Your task to perform on an android device: turn off picture-in-picture Image 0: 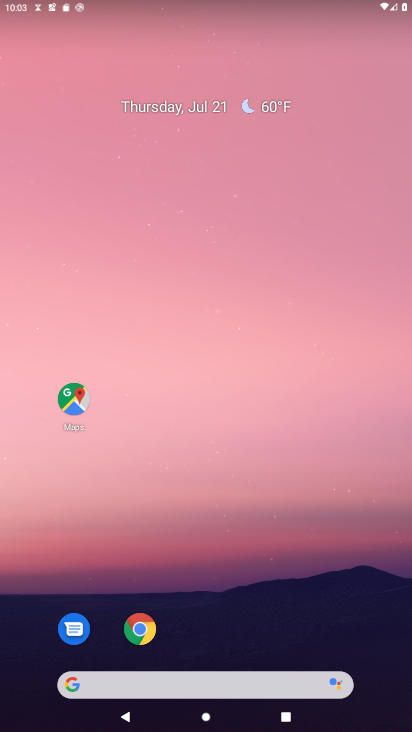
Step 0: drag from (292, 640) to (268, 154)
Your task to perform on an android device: turn off picture-in-picture Image 1: 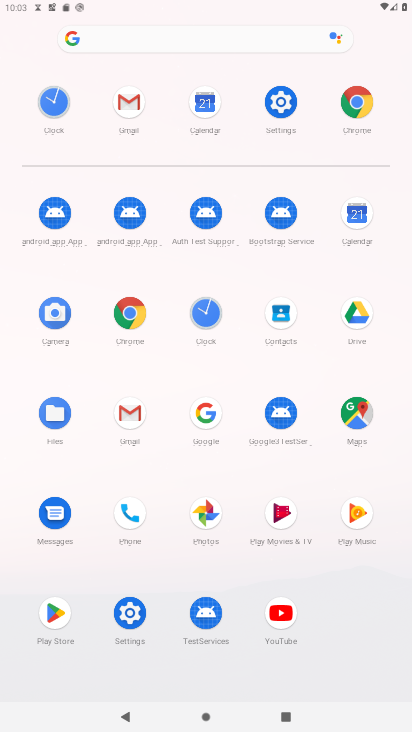
Step 1: click (289, 107)
Your task to perform on an android device: turn off picture-in-picture Image 2: 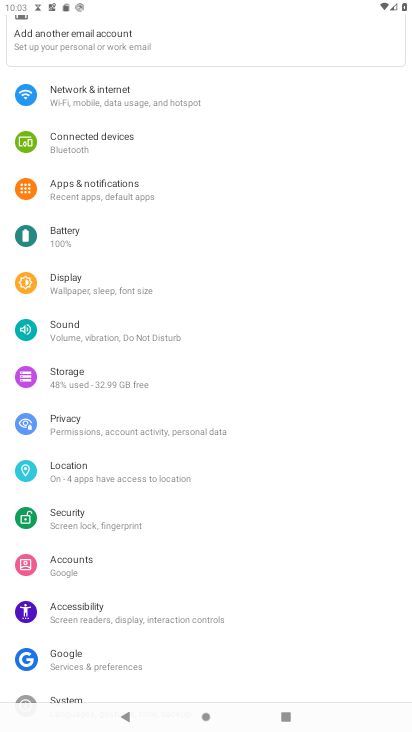
Step 2: click (91, 198)
Your task to perform on an android device: turn off picture-in-picture Image 3: 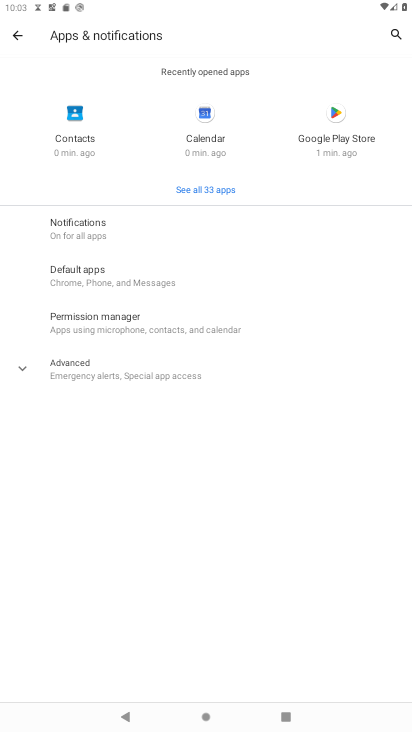
Step 3: click (77, 234)
Your task to perform on an android device: turn off picture-in-picture Image 4: 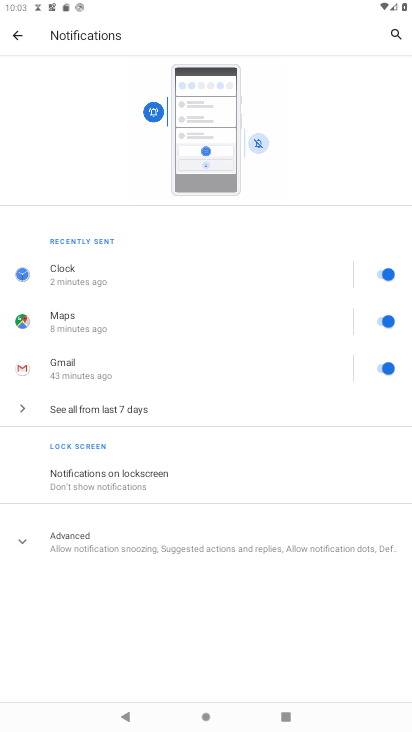
Step 4: click (139, 530)
Your task to perform on an android device: turn off picture-in-picture Image 5: 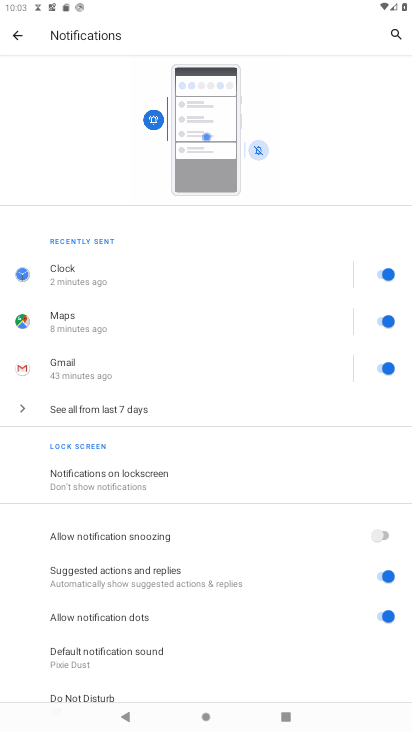
Step 5: drag from (173, 545) to (153, 249)
Your task to perform on an android device: turn off picture-in-picture Image 6: 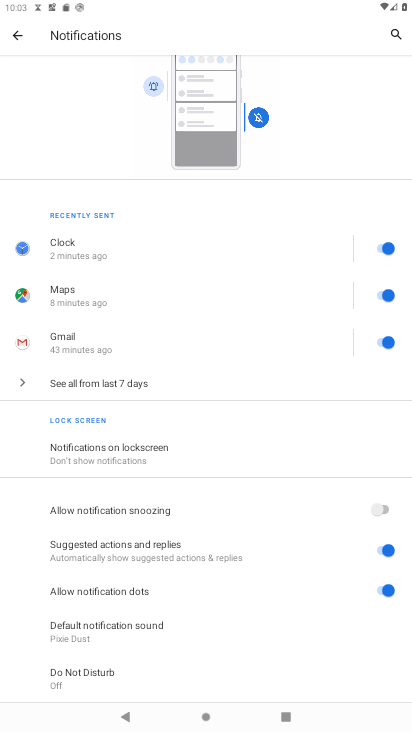
Step 6: click (26, 36)
Your task to perform on an android device: turn off picture-in-picture Image 7: 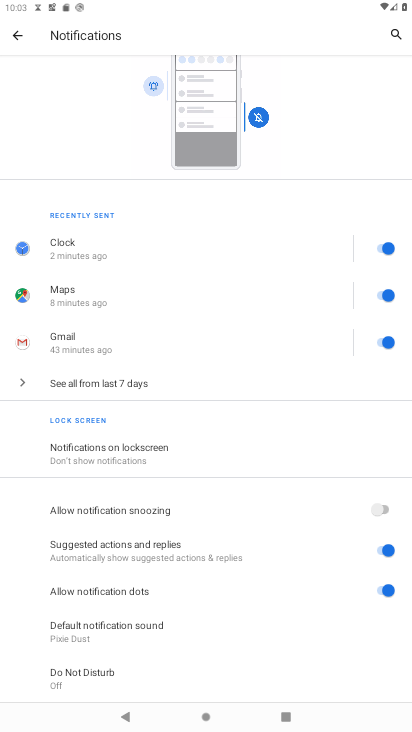
Step 7: click (26, 36)
Your task to perform on an android device: turn off picture-in-picture Image 8: 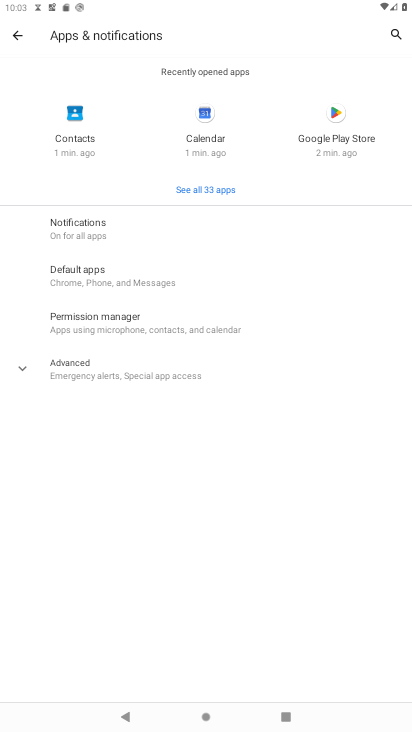
Step 8: click (159, 375)
Your task to perform on an android device: turn off picture-in-picture Image 9: 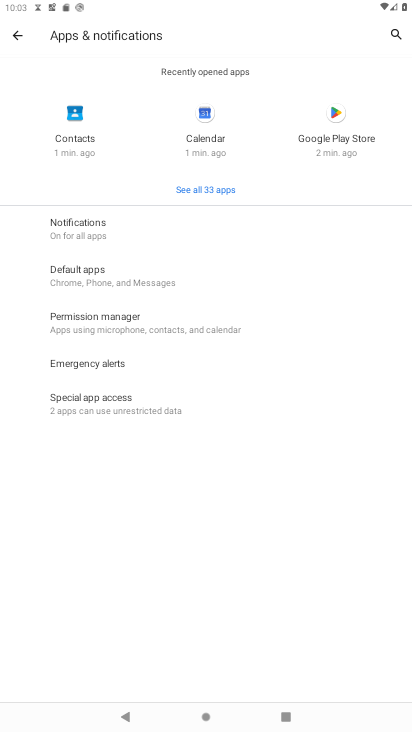
Step 9: click (130, 408)
Your task to perform on an android device: turn off picture-in-picture Image 10: 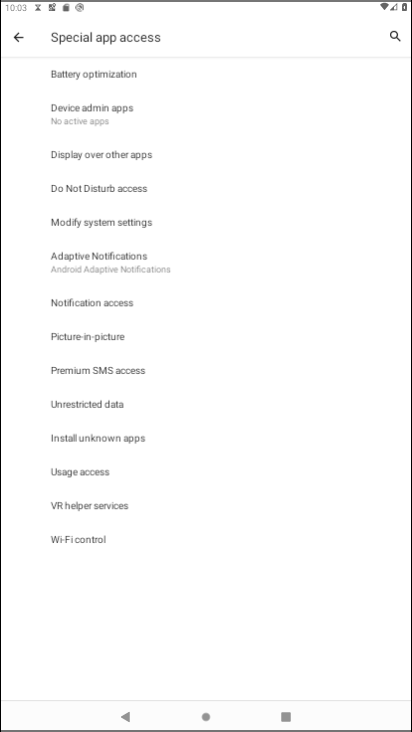
Step 10: click (130, 406)
Your task to perform on an android device: turn off picture-in-picture Image 11: 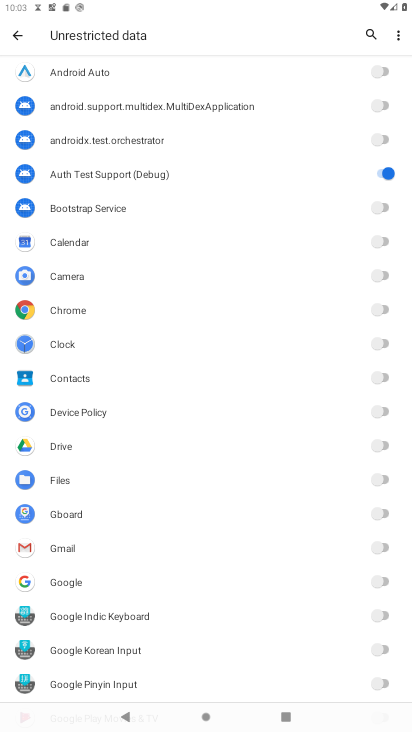
Step 11: click (8, 27)
Your task to perform on an android device: turn off picture-in-picture Image 12: 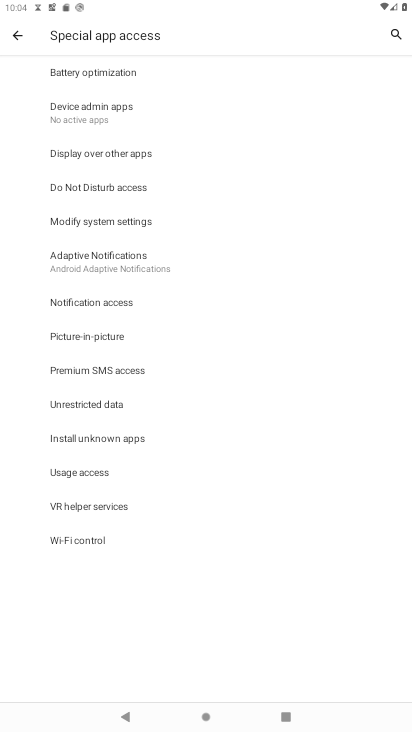
Step 12: click (96, 328)
Your task to perform on an android device: turn off picture-in-picture Image 13: 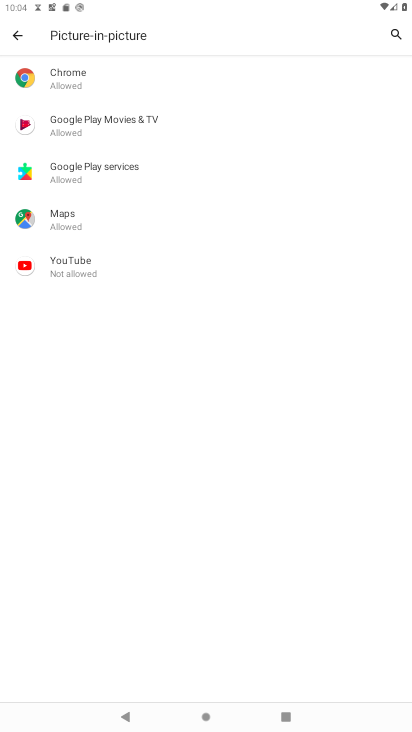
Step 13: click (69, 267)
Your task to perform on an android device: turn off picture-in-picture Image 14: 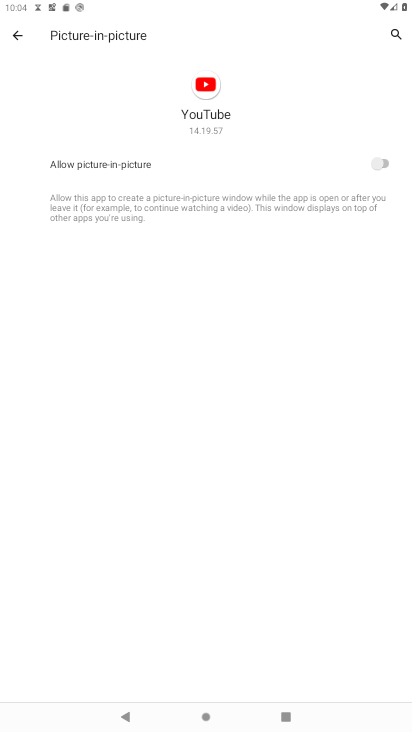
Step 14: task complete